Your task to perform on an android device: turn on improve location accuracy Image 0: 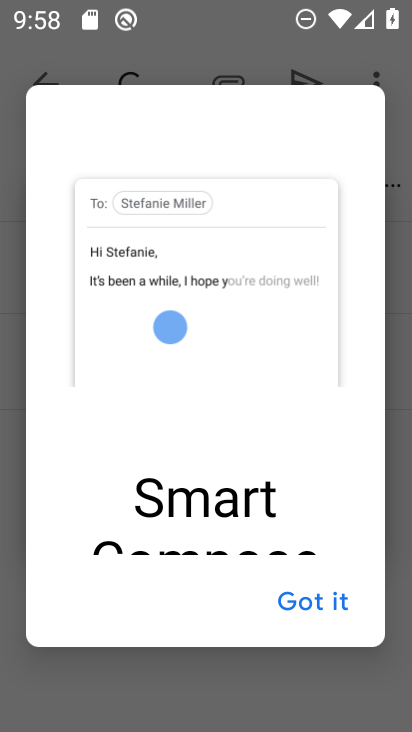
Step 0: click (321, 595)
Your task to perform on an android device: turn on improve location accuracy Image 1: 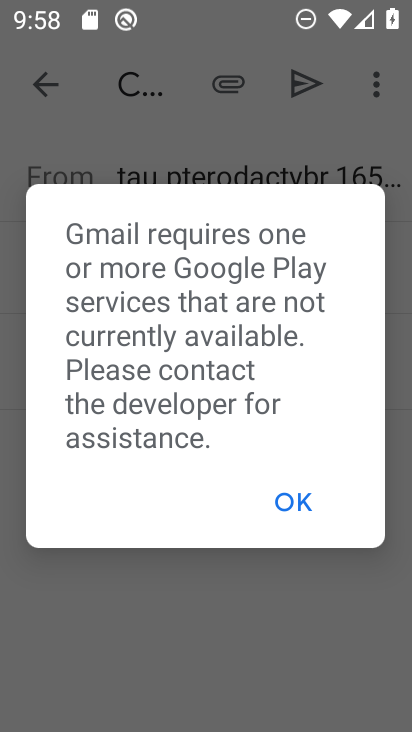
Step 1: press home button
Your task to perform on an android device: turn on improve location accuracy Image 2: 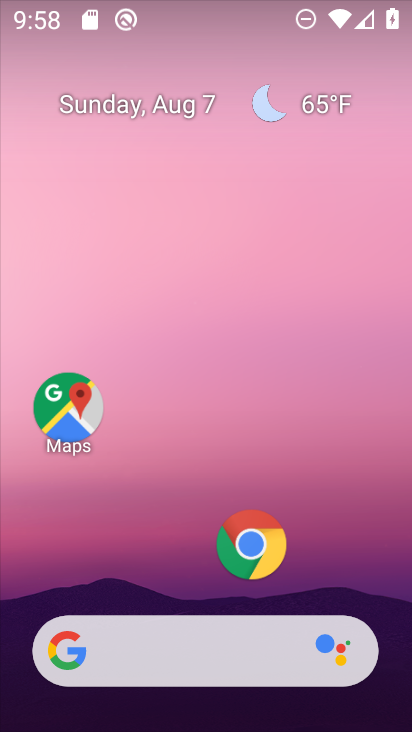
Step 2: drag from (240, 613) to (192, 107)
Your task to perform on an android device: turn on improve location accuracy Image 3: 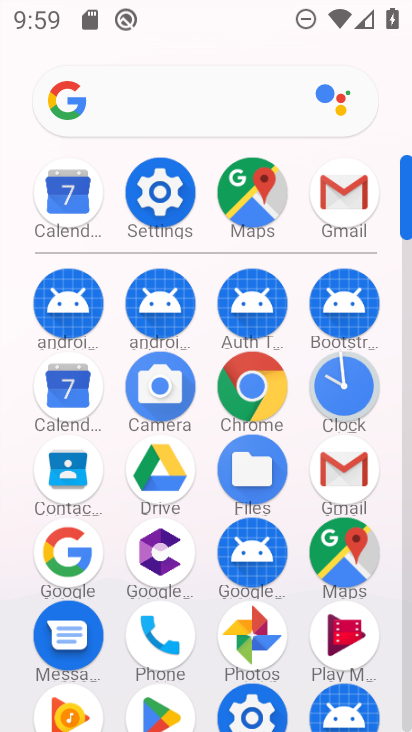
Step 3: click (266, 713)
Your task to perform on an android device: turn on improve location accuracy Image 4: 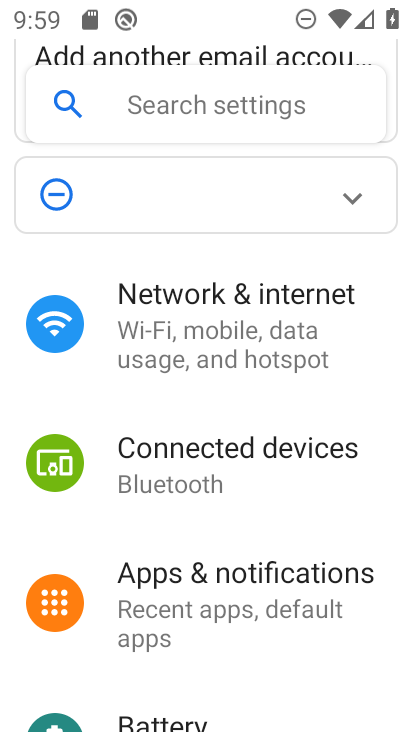
Step 4: drag from (133, 607) to (147, 13)
Your task to perform on an android device: turn on improve location accuracy Image 5: 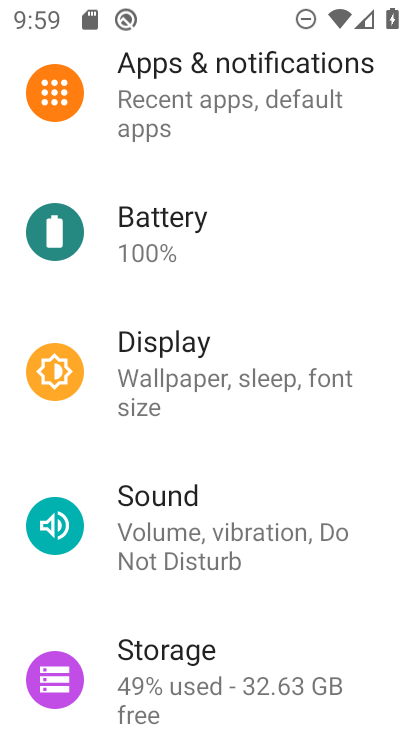
Step 5: drag from (212, 581) to (245, 225)
Your task to perform on an android device: turn on improve location accuracy Image 6: 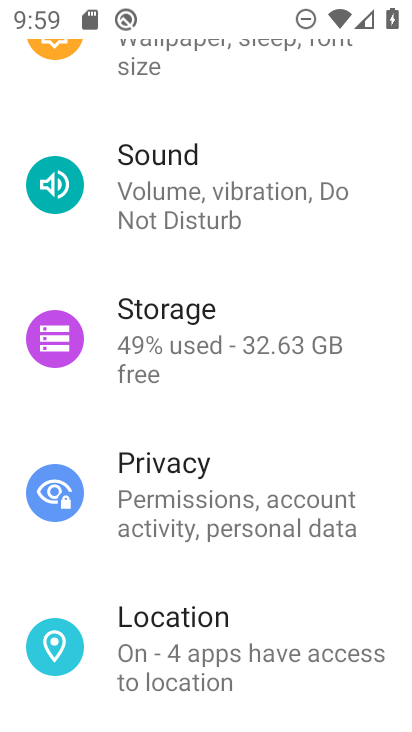
Step 6: click (219, 622)
Your task to perform on an android device: turn on improve location accuracy Image 7: 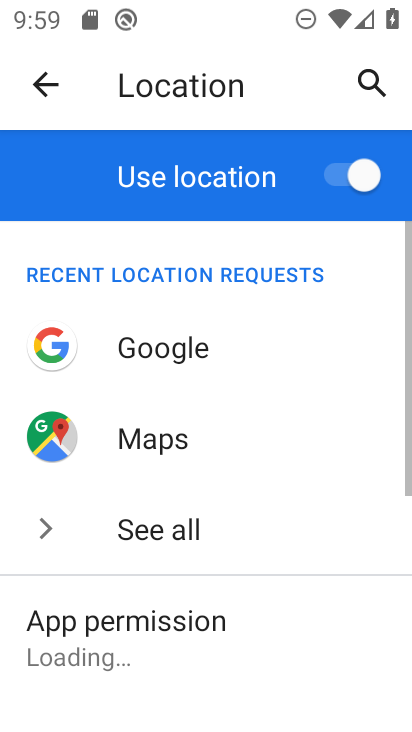
Step 7: drag from (231, 612) to (245, 190)
Your task to perform on an android device: turn on improve location accuracy Image 8: 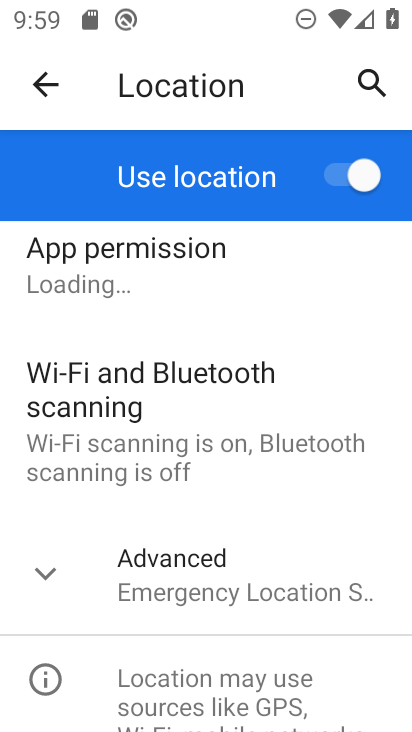
Step 8: click (255, 572)
Your task to perform on an android device: turn on improve location accuracy Image 9: 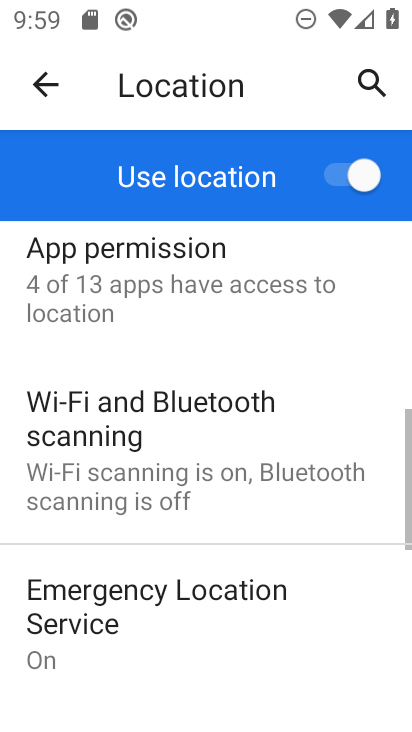
Step 9: drag from (255, 572) to (312, 125)
Your task to perform on an android device: turn on improve location accuracy Image 10: 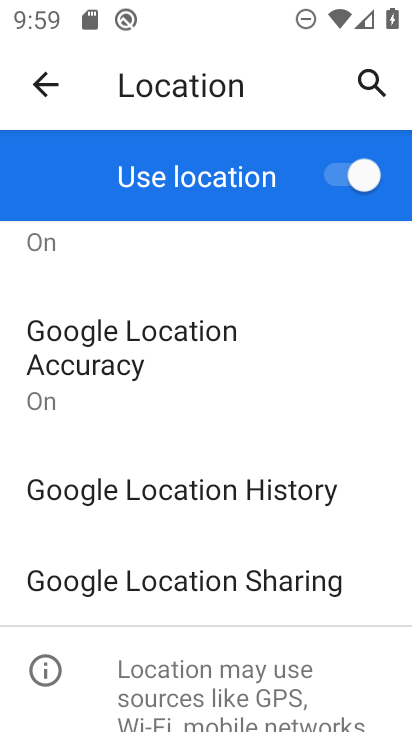
Step 10: click (138, 356)
Your task to perform on an android device: turn on improve location accuracy Image 11: 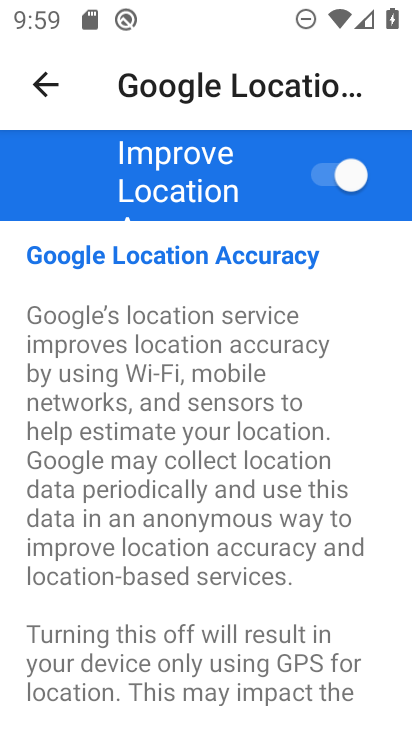
Step 11: task complete